Your task to perform on an android device: Open CNN.com Image 0: 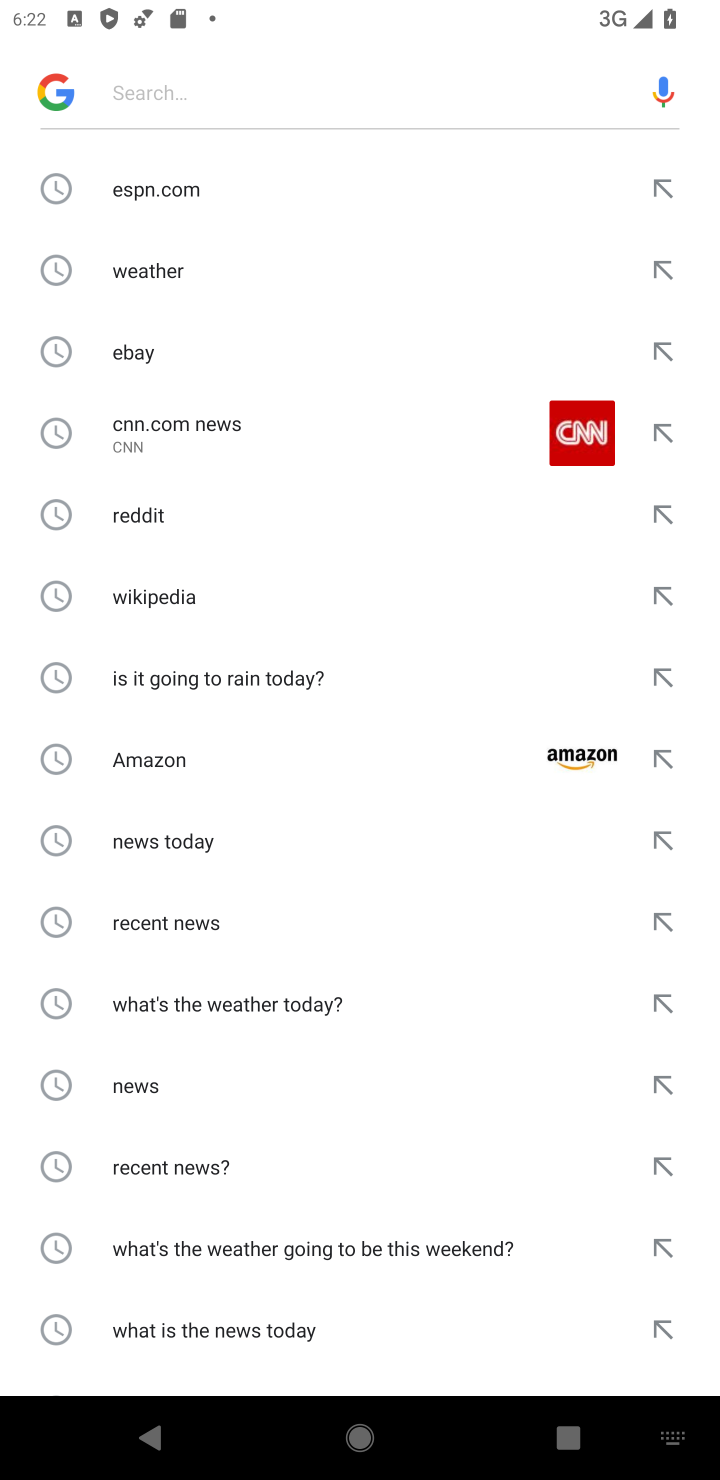
Step 0: press home button
Your task to perform on an android device: Open CNN.com Image 1: 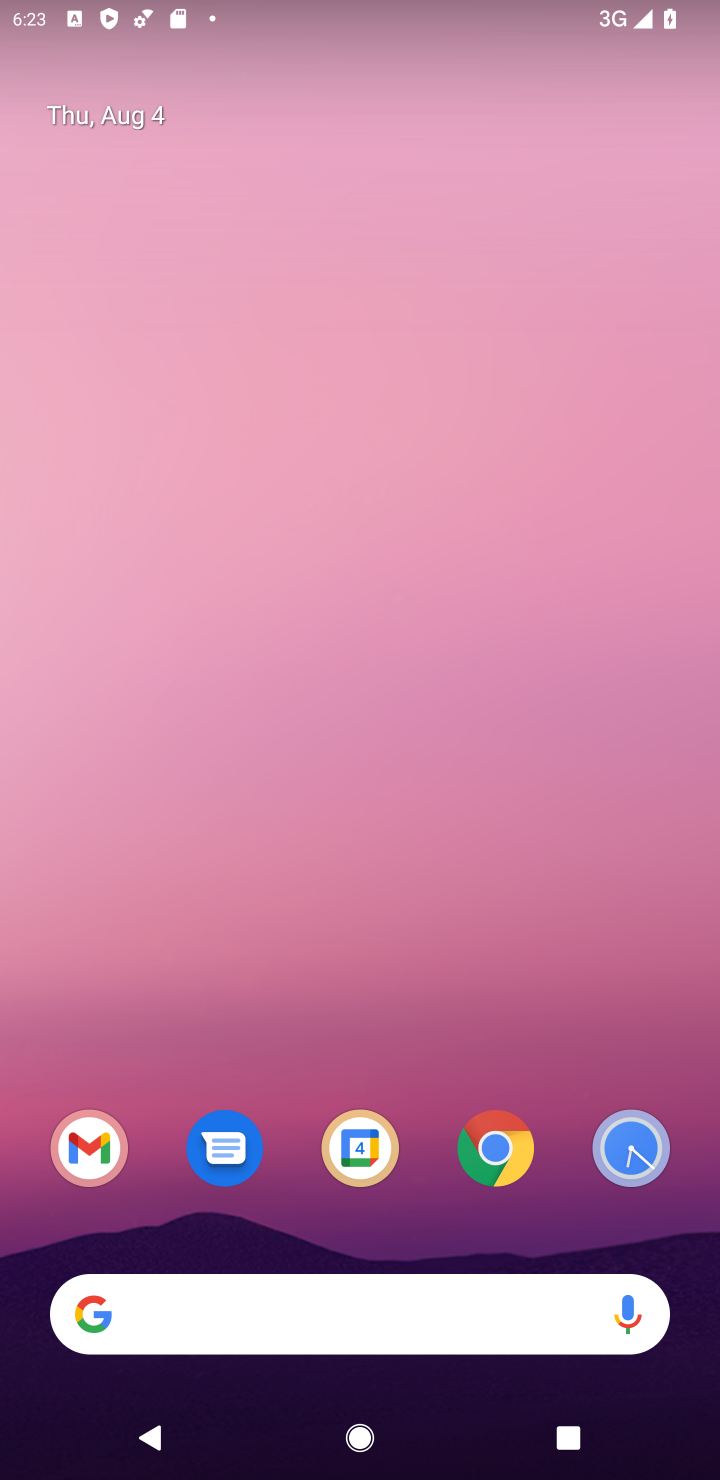
Step 1: click (499, 1155)
Your task to perform on an android device: Open CNN.com Image 2: 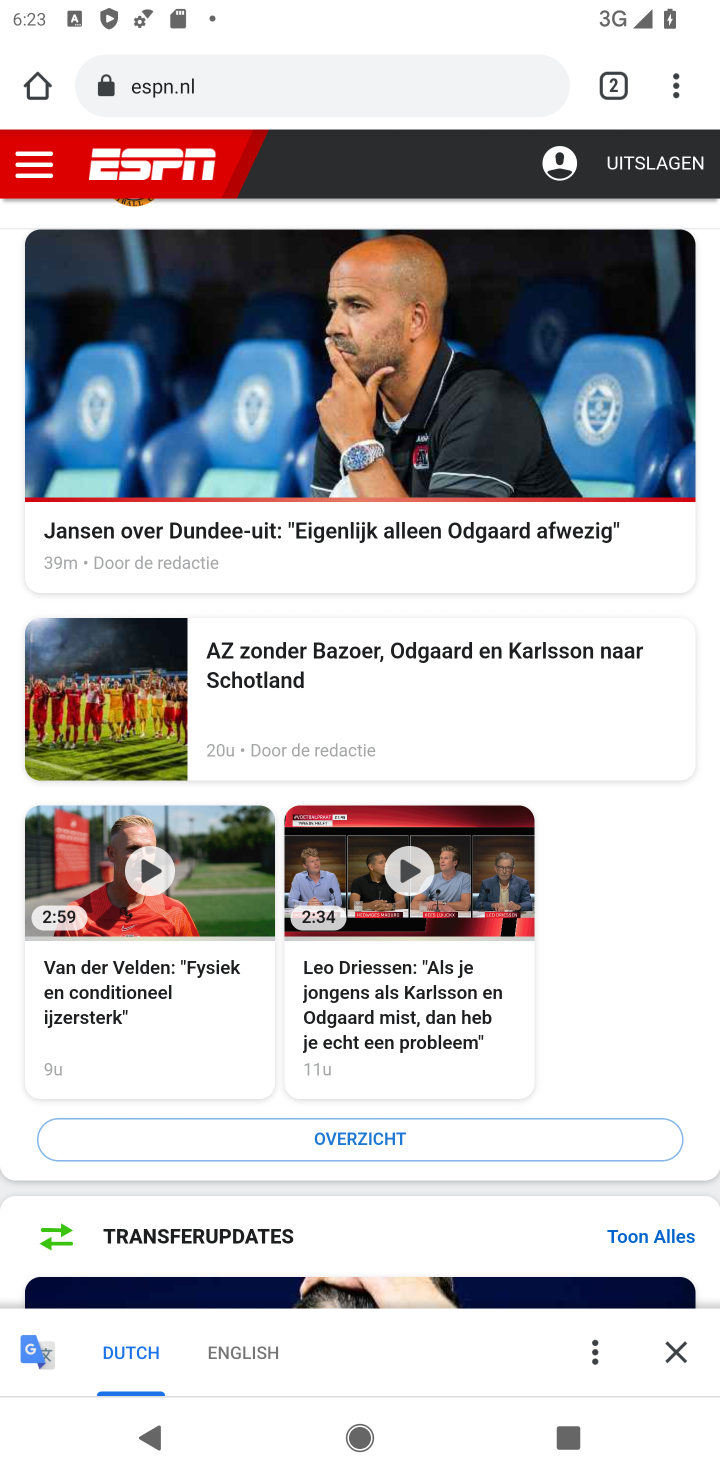
Step 2: click (264, 79)
Your task to perform on an android device: Open CNN.com Image 3: 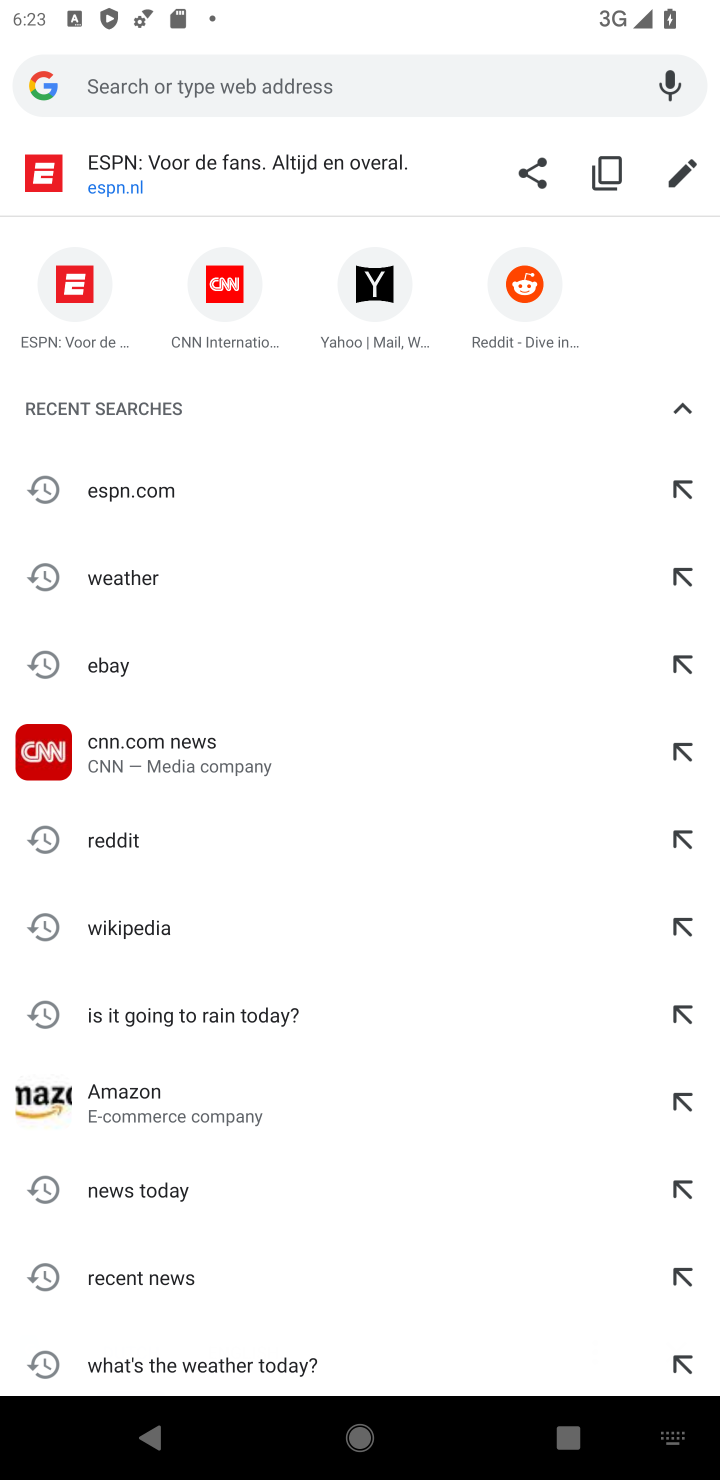
Step 3: type "cnn.com"
Your task to perform on an android device: Open CNN.com Image 4: 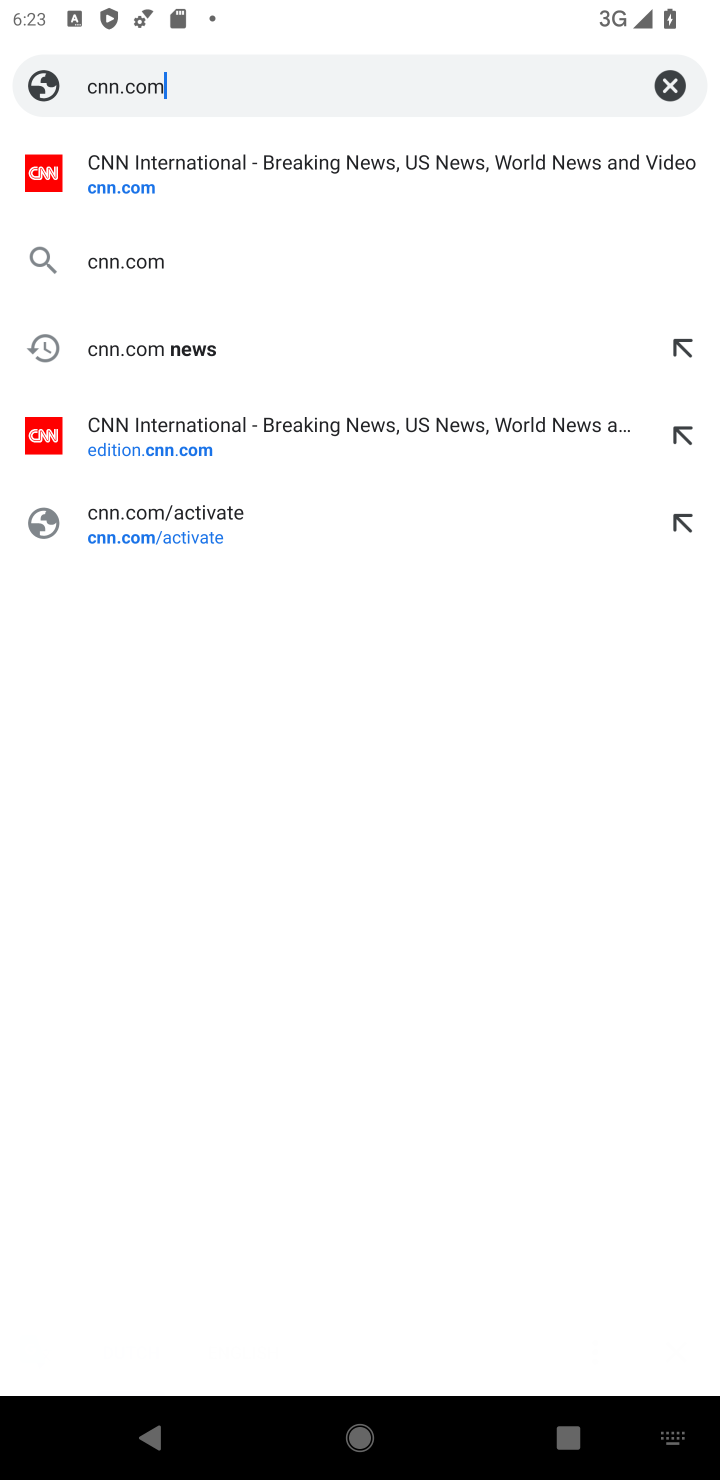
Step 4: click (129, 164)
Your task to perform on an android device: Open CNN.com Image 5: 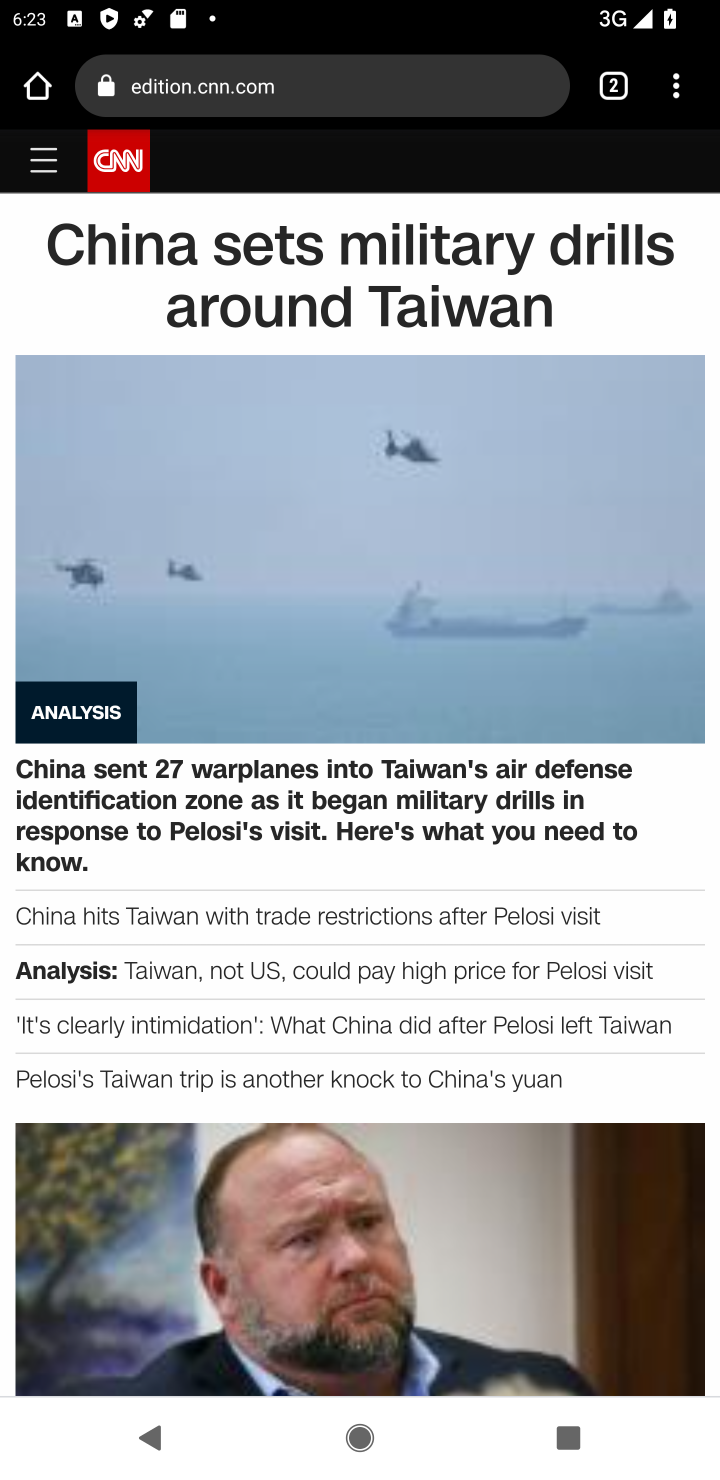
Step 5: task complete